Your task to perform on an android device: Open privacy settings Image 0: 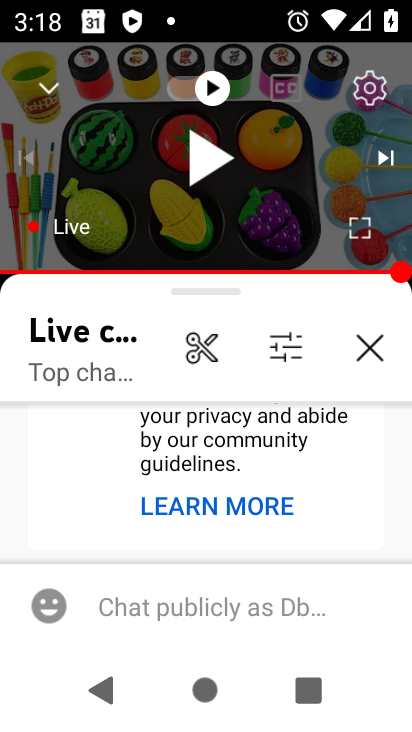
Step 0: press home button
Your task to perform on an android device: Open privacy settings Image 1: 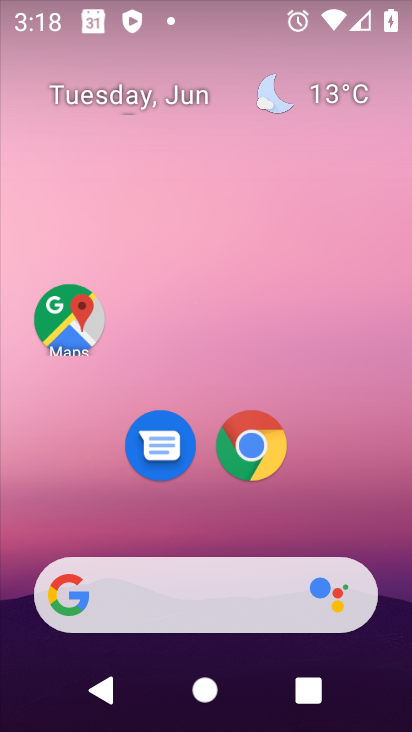
Step 1: drag from (402, 588) to (373, 77)
Your task to perform on an android device: Open privacy settings Image 2: 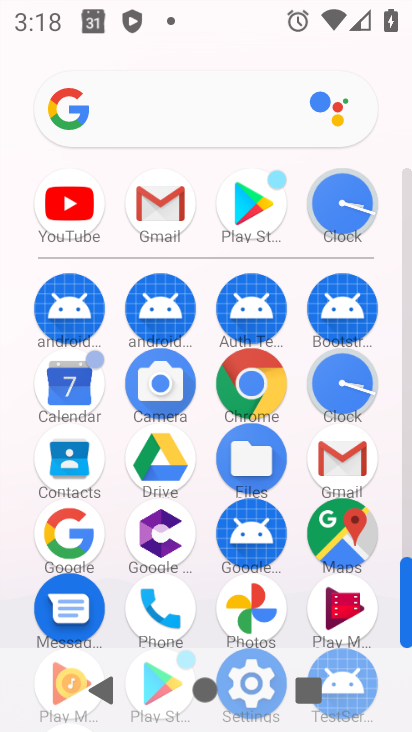
Step 2: click (406, 536)
Your task to perform on an android device: Open privacy settings Image 3: 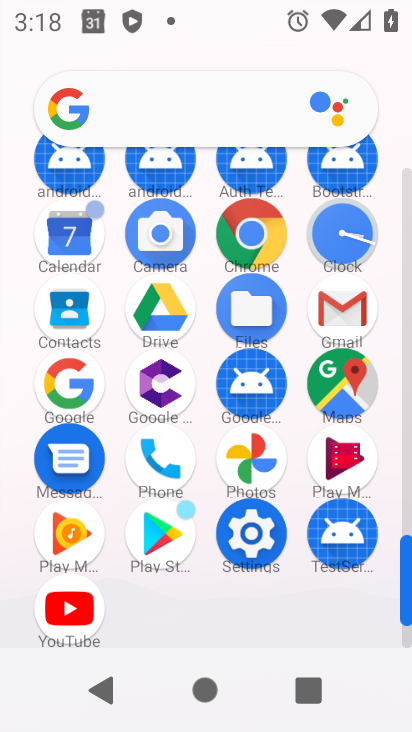
Step 3: click (255, 533)
Your task to perform on an android device: Open privacy settings Image 4: 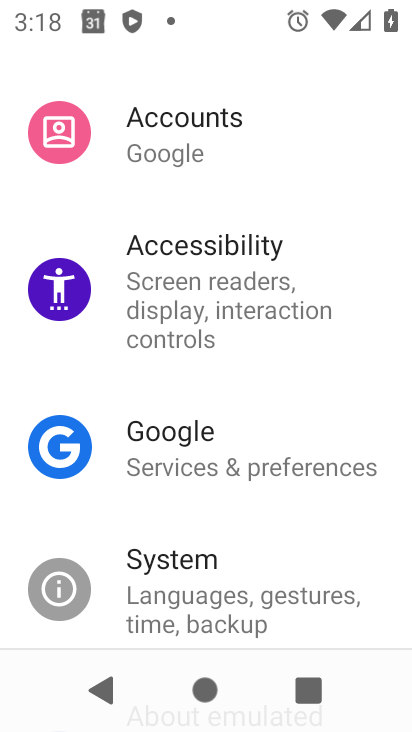
Step 4: drag from (370, 156) to (367, 380)
Your task to perform on an android device: Open privacy settings Image 5: 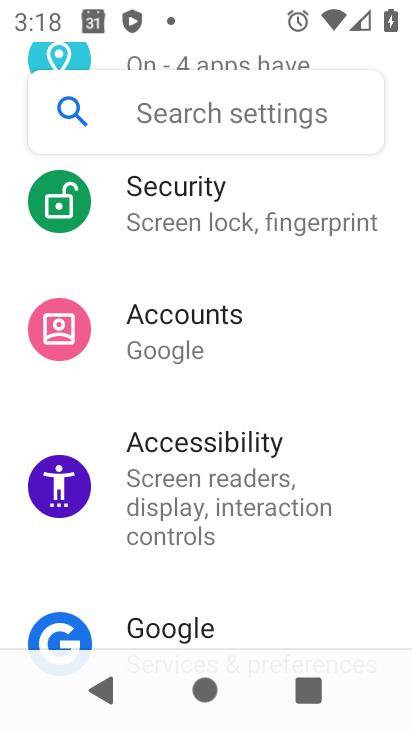
Step 5: drag from (382, 188) to (382, 494)
Your task to perform on an android device: Open privacy settings Image 6: 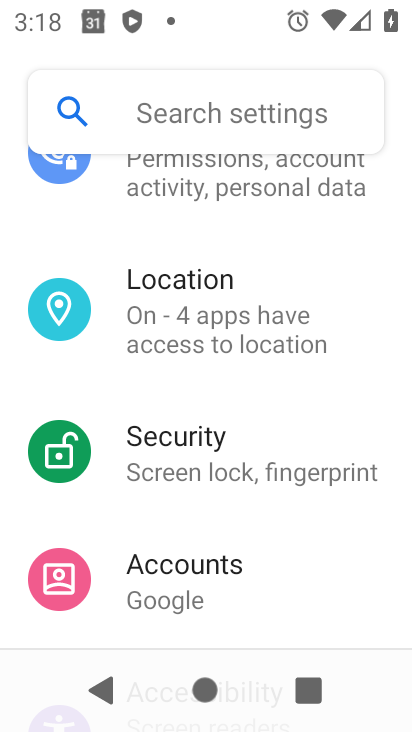
Step 6: drag from (368, 242) to (381, 474)
Your task to perform on an android device: Open privacy settings Image 7: 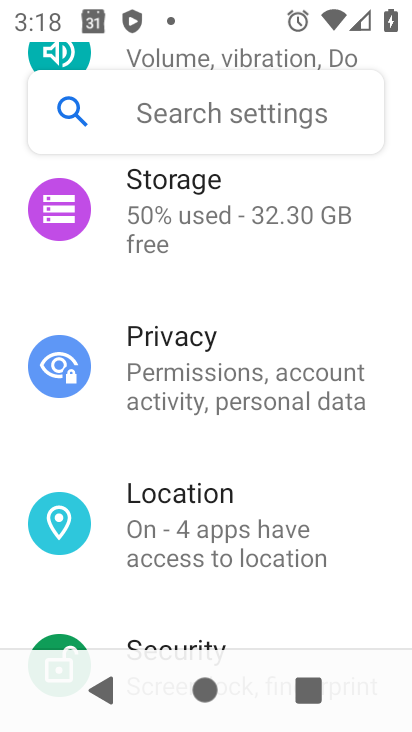
Step 7: click (173, 360)
Your task to perform on an android device: Open privacy settings Image 8: 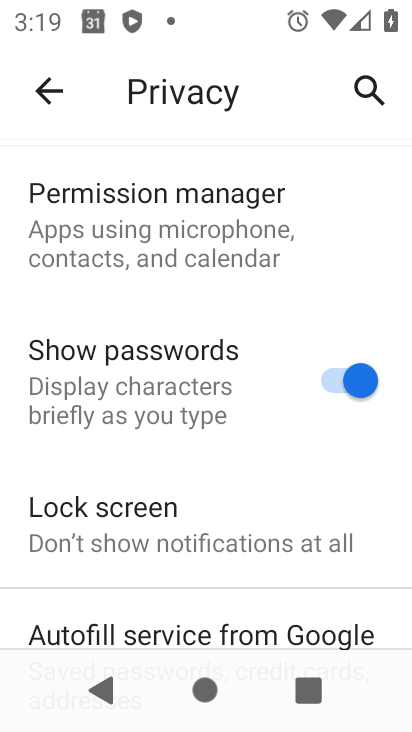
Step 8: drag from (331, 530) to (319, 211)
Your task to perform on an android device: Open privacy settings Image 9: 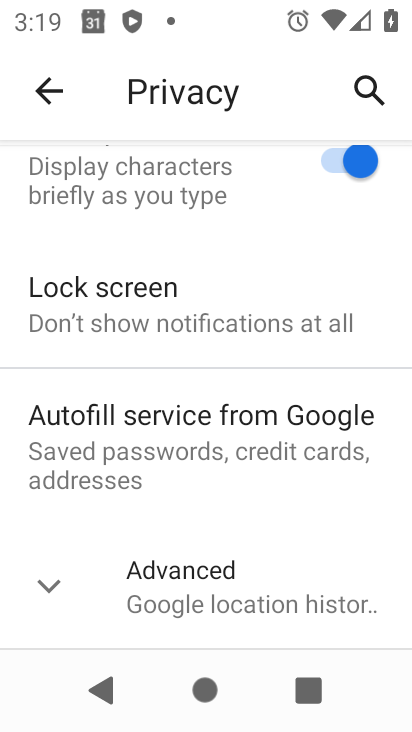
Step 9: click (46, 584)
Your task to perform on an android device: Open privacy settings Image 10: 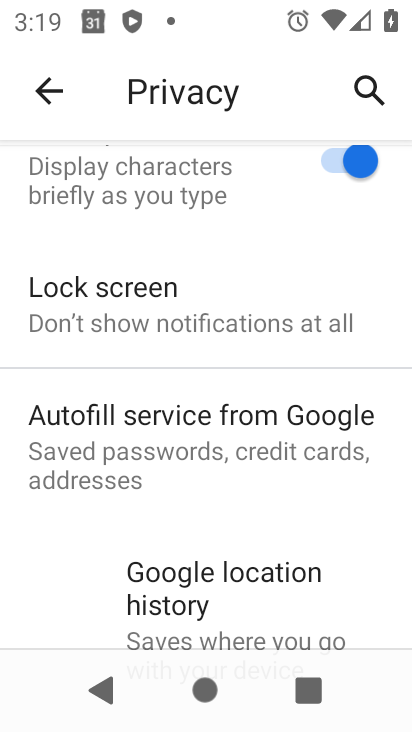
Step 10: task complete